Your task to perform on an android device: Search for "macbook pro 15 inch" on ebay, select the first entry, add it to the cart, then select checkout. Image 0: 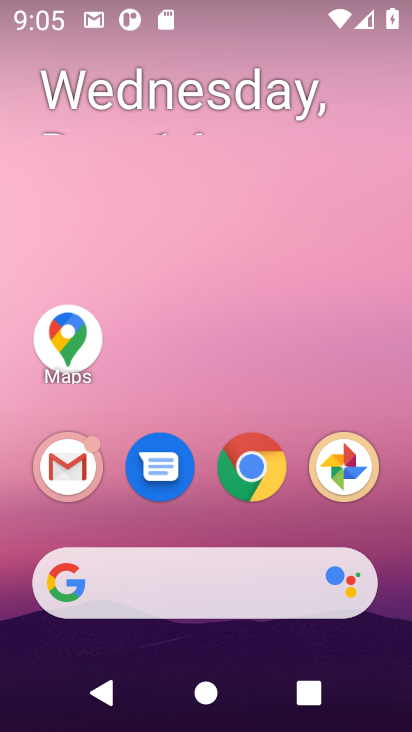
Step 0: click (233, 566)
Your task to perform on an android device: Search for "macbook pro 15 inch" on ebay, select the first entry, add it to the cart, then select checkout. Image 1: 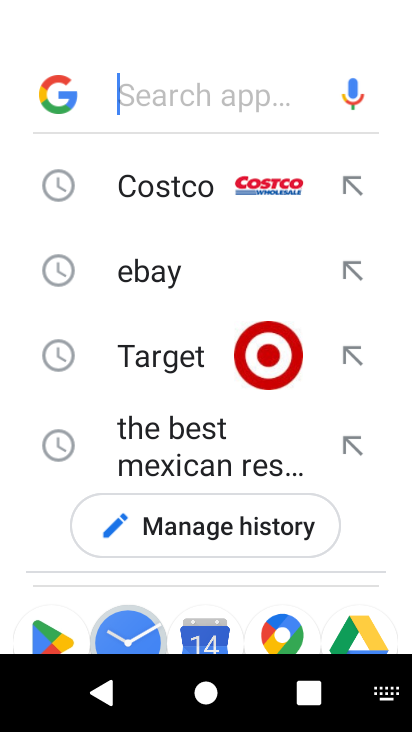
Step 1: type "eay"
Your task to perform on an android device: Search for "macbook pro 15 inch" on ebay, select the first entry, add it to the cart, then select checkout. Image 2: 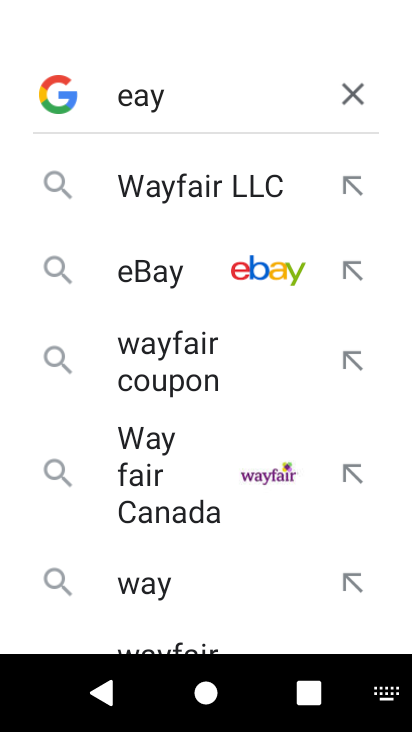
Step 2: click (173, 279)
Your task to perform on an android device: Search for "macbook pro 15 inch" on ebay, select the first entry, add it to the cart, then select checkout. Image 3: 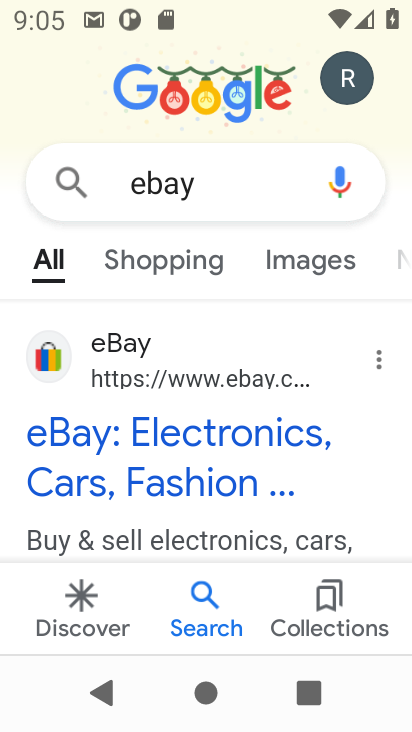
Step 3: click (258, 427)
Your task to perform on an android device: Search for "macbook pro 15 inch" on ebay, select the first entry, add it to the cart, then select checkout. Image 4: 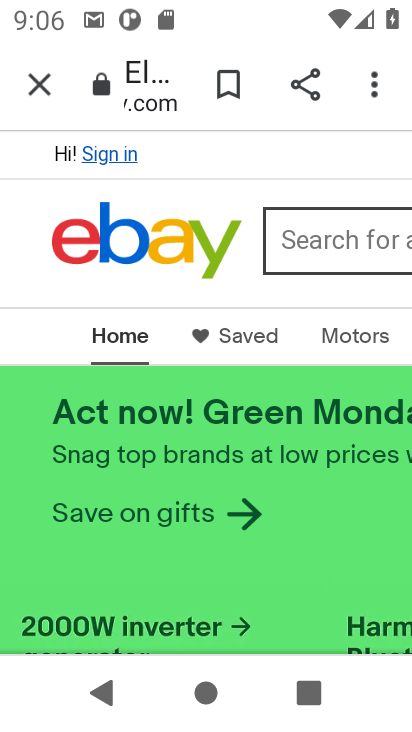
Step 4: click (303, 254)
Your task to perform on an android device: Search for "macbook pro 15 inch" on ebay, select the first entry, add it to the cart, then select checkout. Image 5: 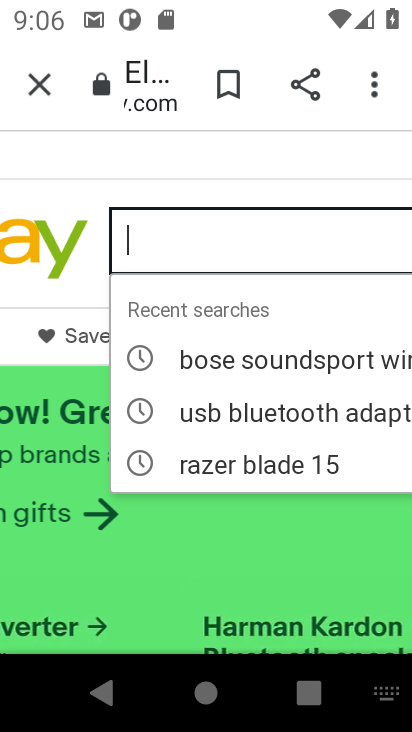
Step 5: type "macbook 15 inch"
Your task to perform on an android device: Search for "macbook pro 15 inch" on ebay, select the first entry, add it to the cart, then select checkout. Image 6: 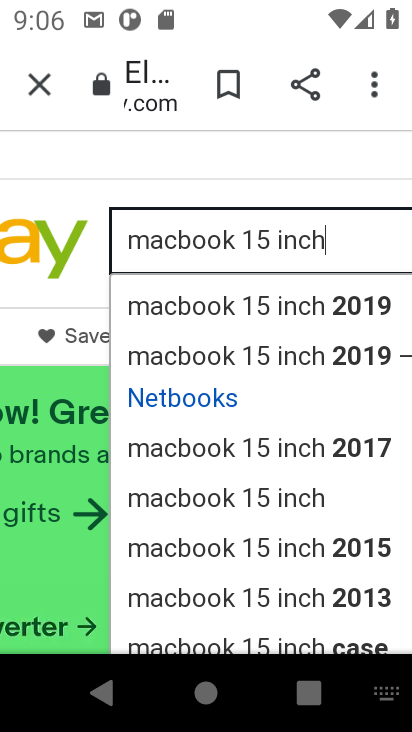
Step 6: click (231, 311)
Your task to perform on an android device: Search for "macbook pro 15 inch" on ebay, select the first entry, add it to the cart, then select checkout. Image 7: 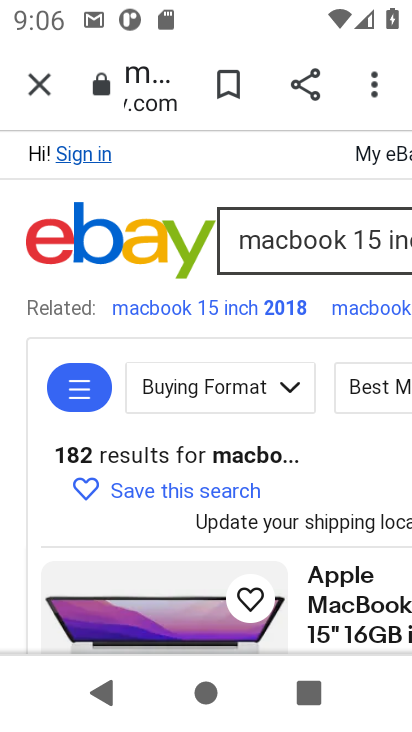
Step 7: task complete